Your task to perform on an android device: When is my next appointment? Image 0: 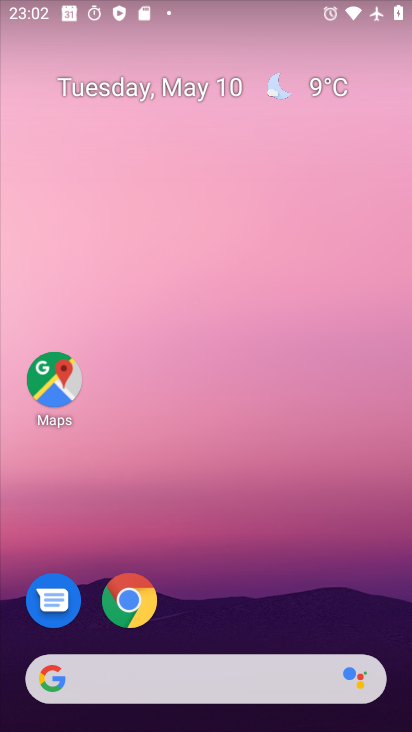
Step 0: drag from (334, 337) to (346, 67)
Your task to perform on an android device: When is my next appointment? Image 1: 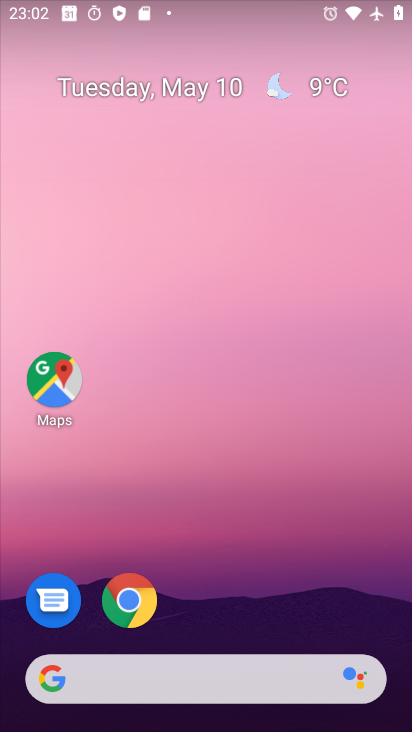
Step 1: drag from (299, 585) to (294, 63)
Your task to perform on an android device: When is my next appointment? Image 2: 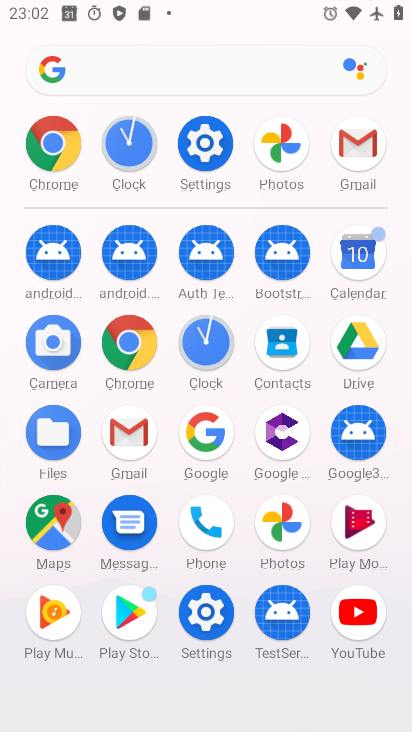
Step 2: click (338, 270)
Your task to perform on an android device: When is my next appointment? Image 3: 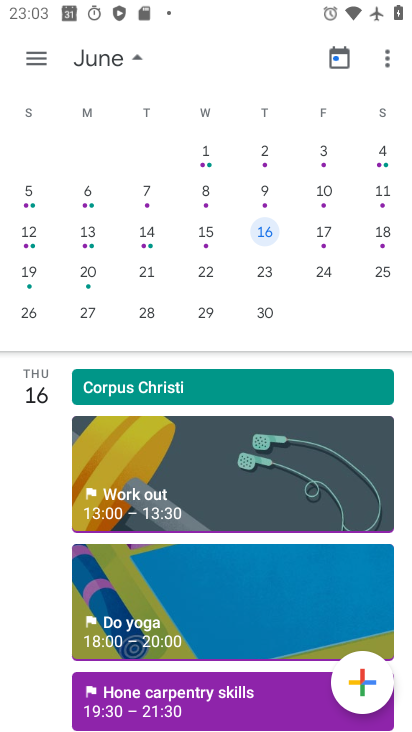
Step 3: click (323, 234)
Your task to perform on an android device: When is my next appointment? Image 4: 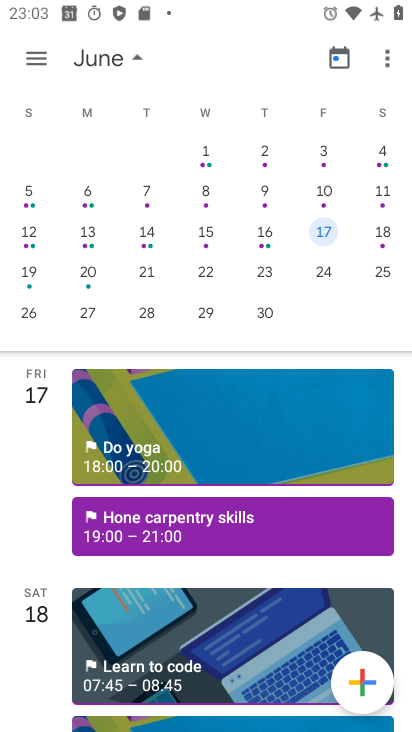
Step 4: task complete